Your task to perform on an android device: visit the assistant section in the google photos Image 0: 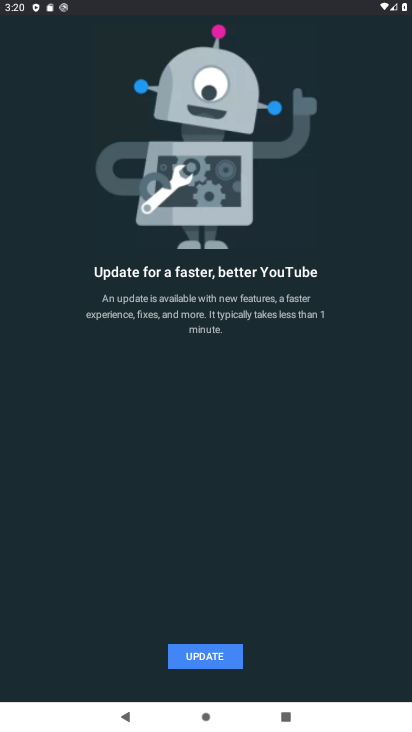
Step 0: press home button
Your task to perform on an android device: visit the assistant section in the google photos Image 1: 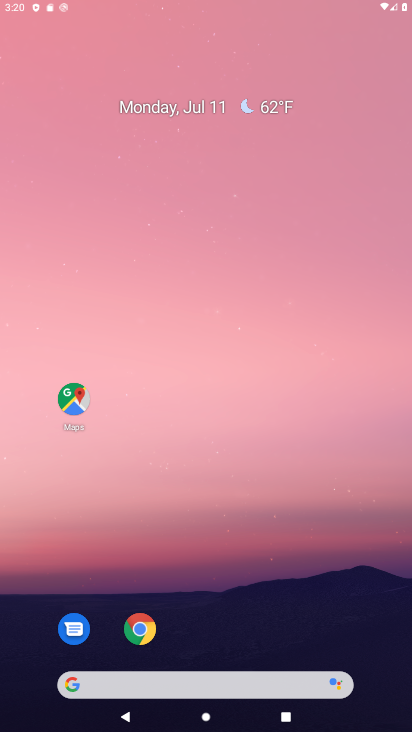
Step 1: drag from (226, 598) to (217, 297)
Your task to perform on an android device: visit the assistant section in the google photos Image 2: 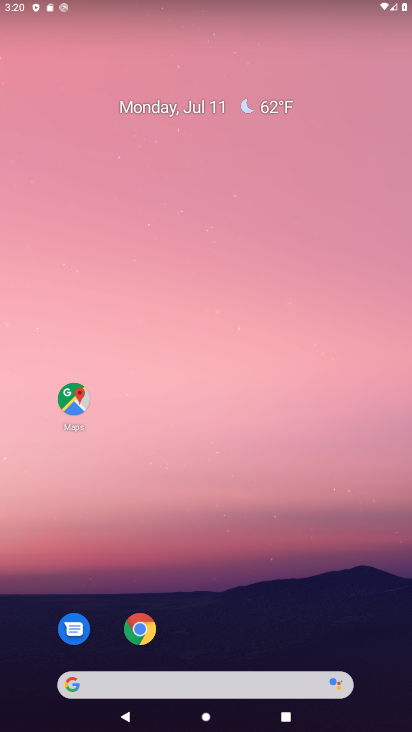
Step 2: drag from (241, 595) to (244, 135)
Your task to perform on an android device: visit the assistant section in the google photos Image 3: 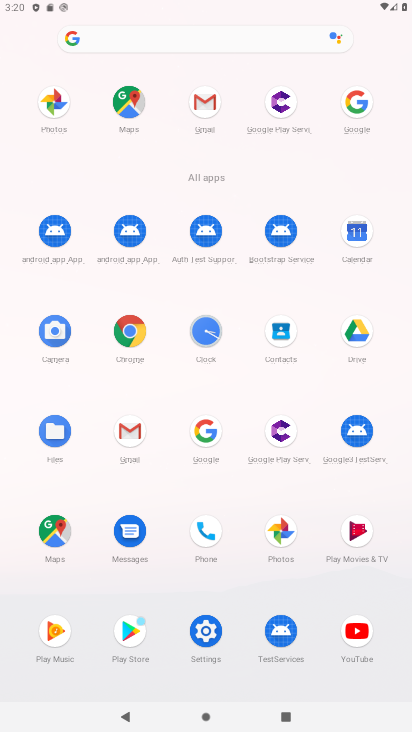
Step 3: click (58, 111)
Your task to perform on an android device: visit the assistant section in the google photos Image 4: 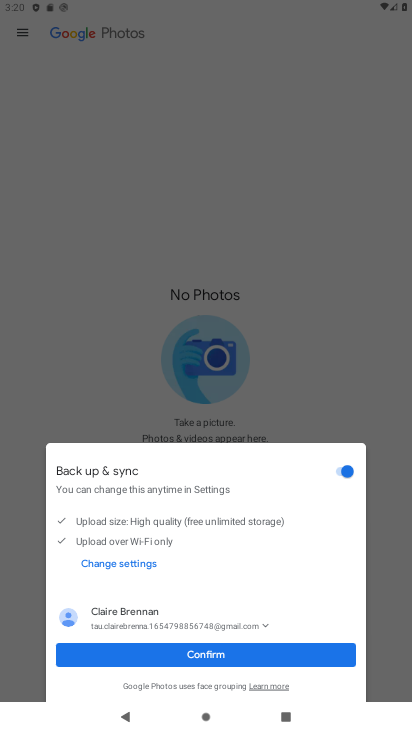
Step 4: click (214, 657)
Your task to perform on an android device: visit the assistant section in the google photos Image 5: 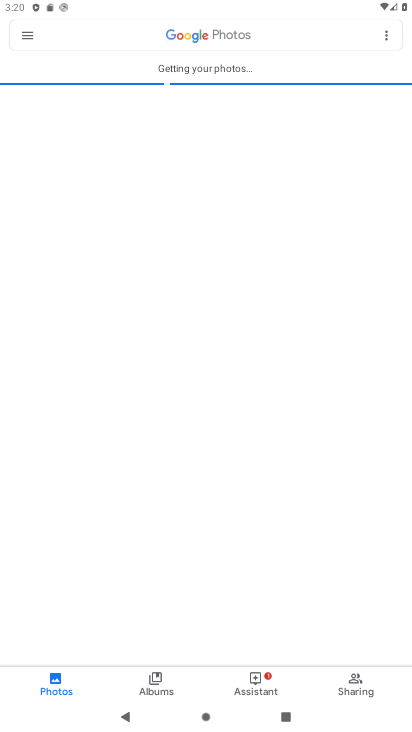
Step 5: click (250, 684)
Your task to perform on an android device: visit the assistant section in the google photos Image 6: 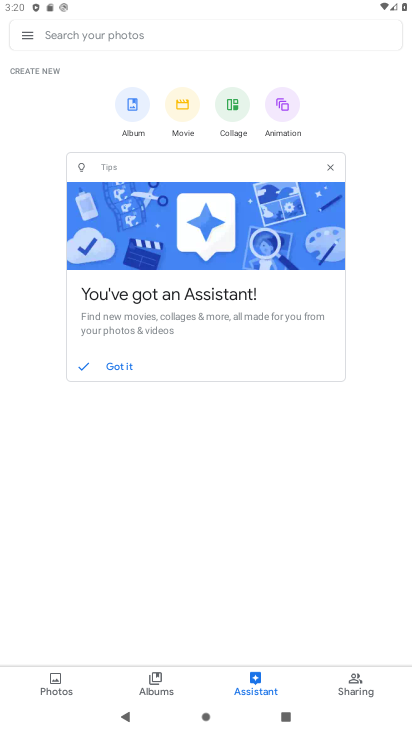
Step 6: task complete